Your task to perform on an android device: change text size in settings app Image 0: 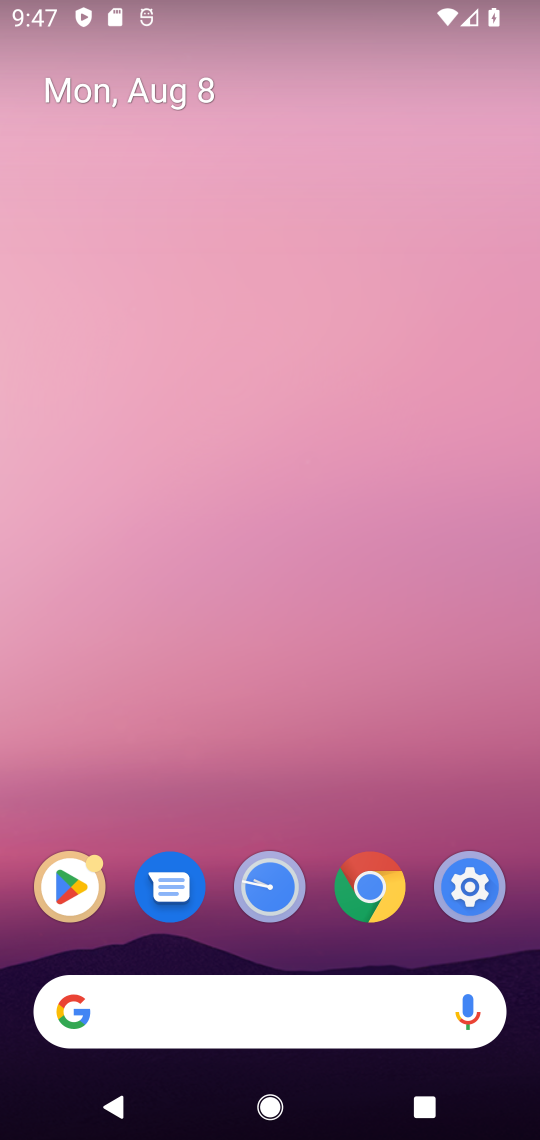
Step 0: drag from (384, 737) to (429, 76)
Your task to perform on an android device: change text size in settings app Image 1: 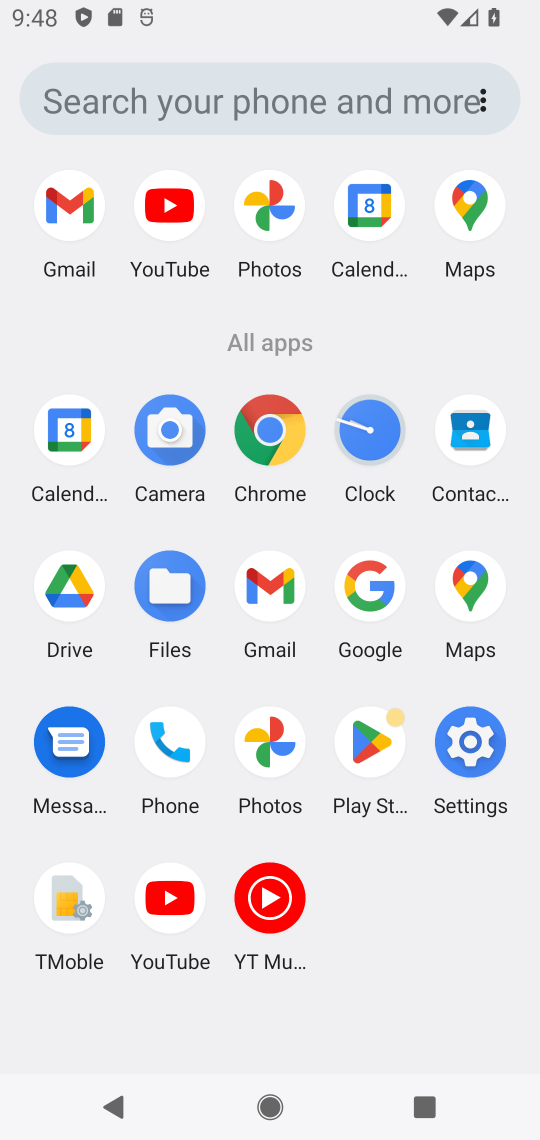
Step 1: click (480, 758)
Your task to perform on an android device: change text size in settings app Image 2: 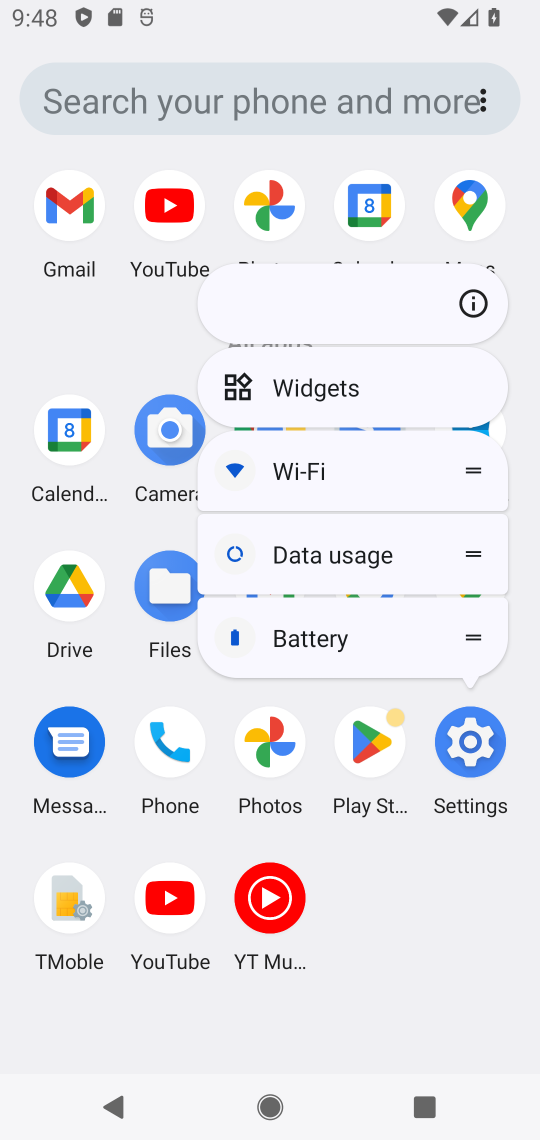
Step 2: click (480, 752)
Your task to perform on an android device: change text size in settings app Image 3: 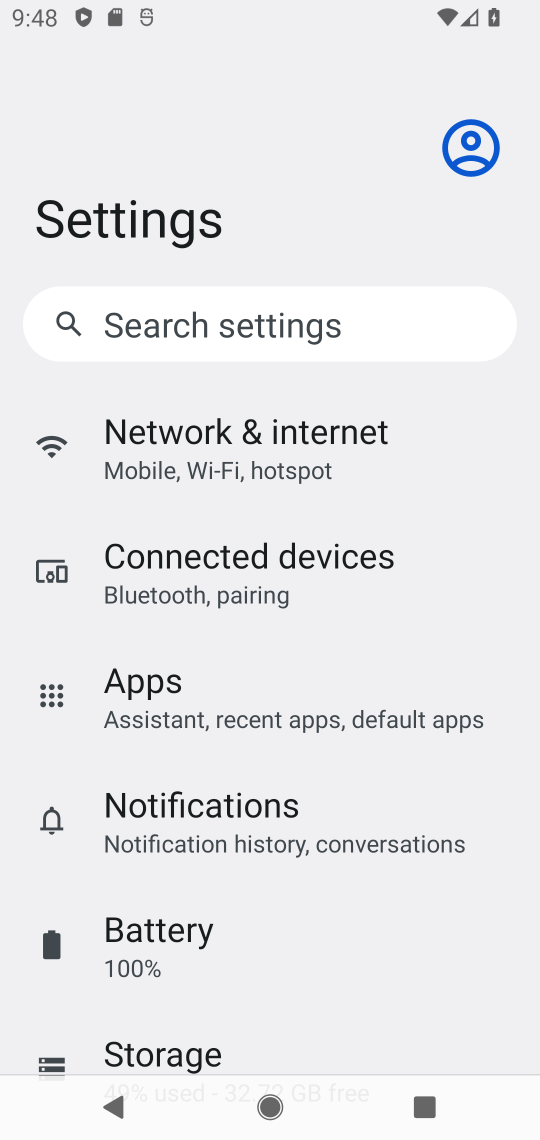
Step 3: drag from (281, 1022) to (340, 520)
Your task to perform on an android device: change text size in settings app Image 4: 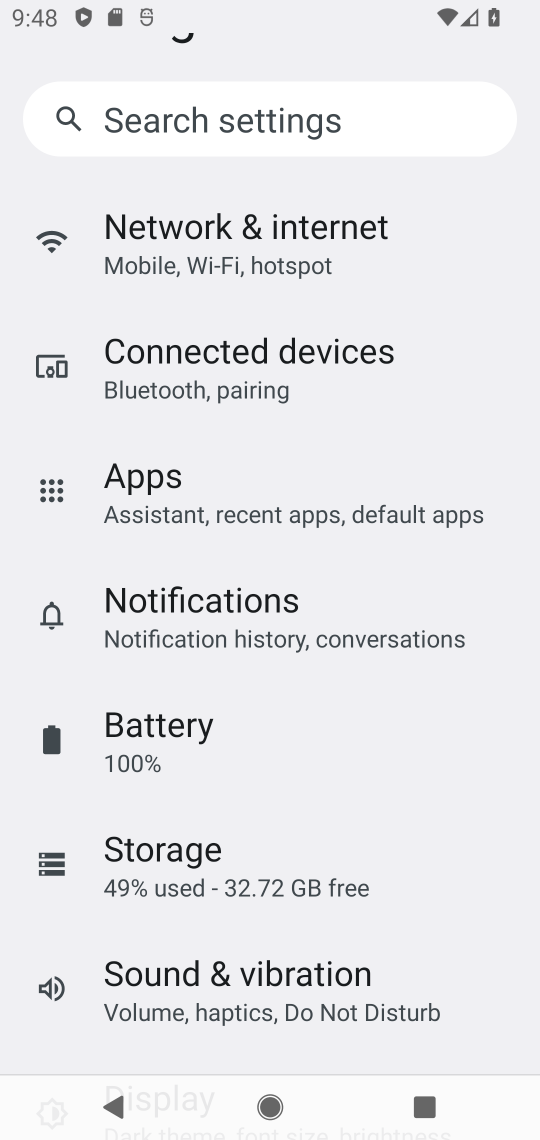
Step 4: drag from (370, 839) to (462, 303)
Your task to perform on an android device: change text size in settings app Image 5: 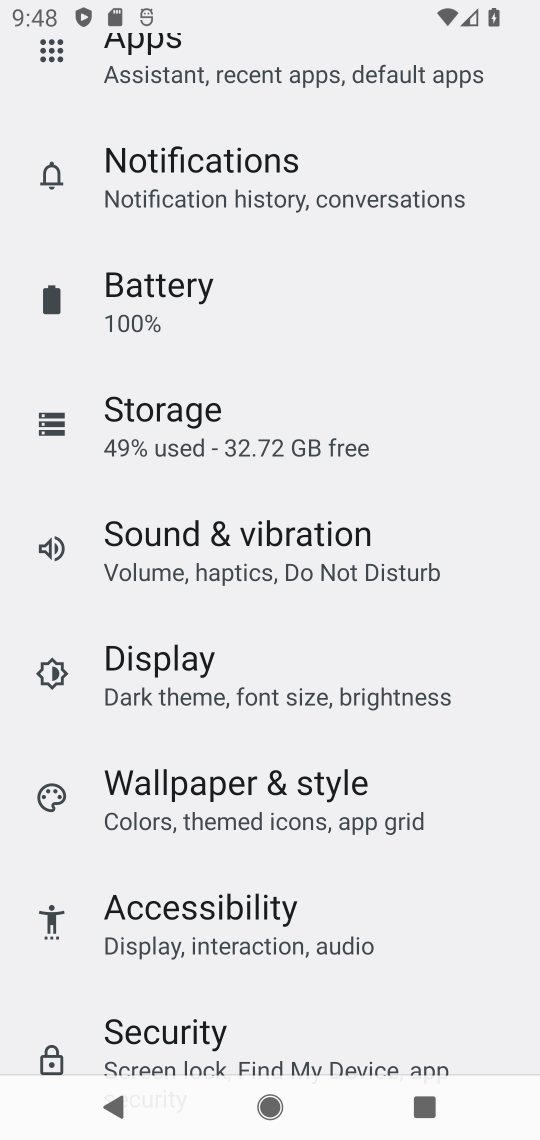
Step 5: drag from (406, 275) to (458, 196)
Your task to perform on an android device: change text size in settings app Image 6: 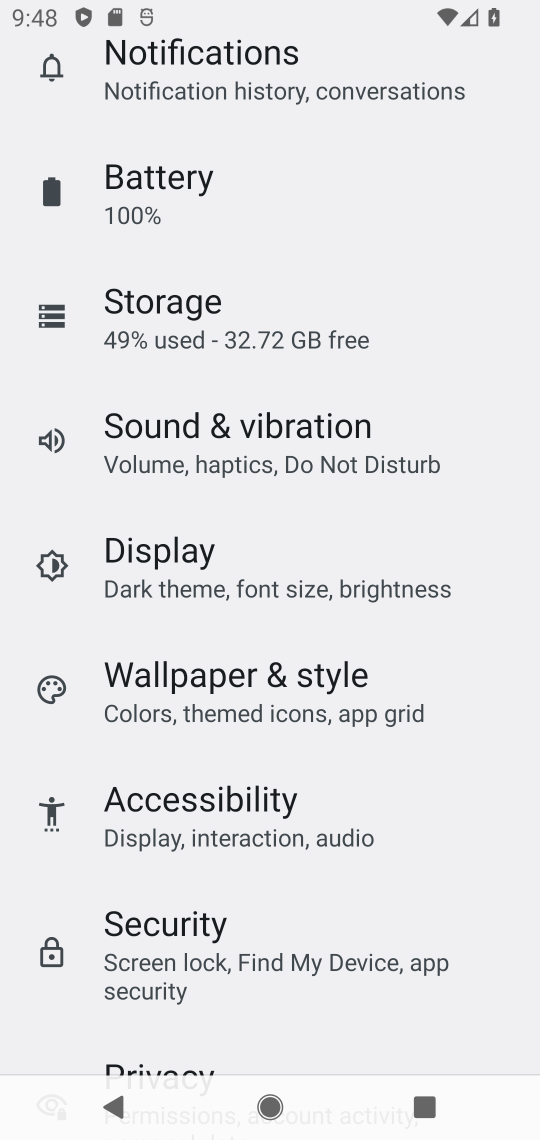
Step 6: click (304, 588)
Your task to perform on an android device: change text size in settings app Image 7: 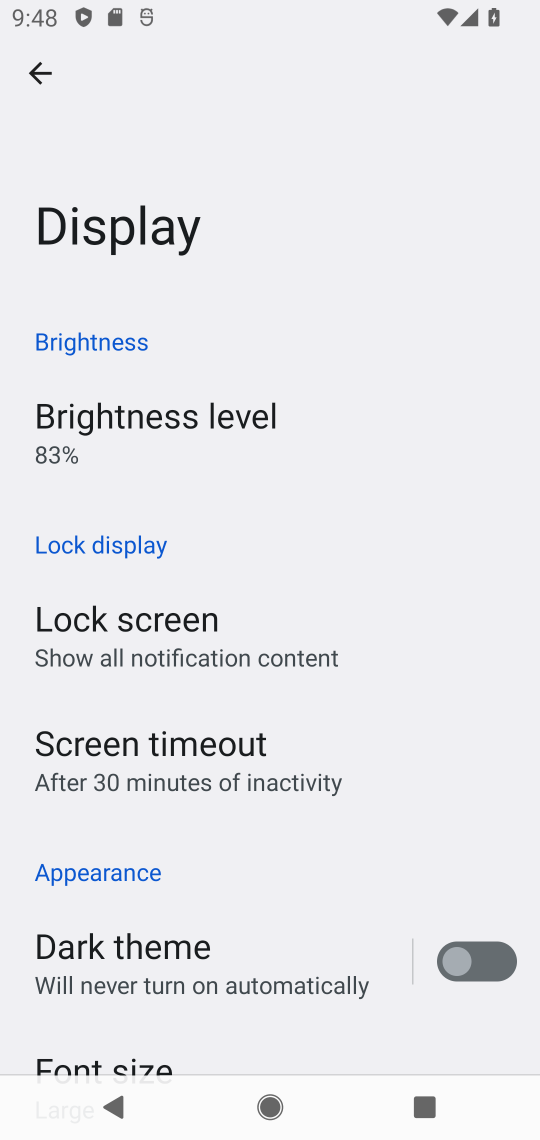
Step 7: drag from (415, 828) to (536, 317)
Your task to perform on an android device: change text size in settings app Image 8: 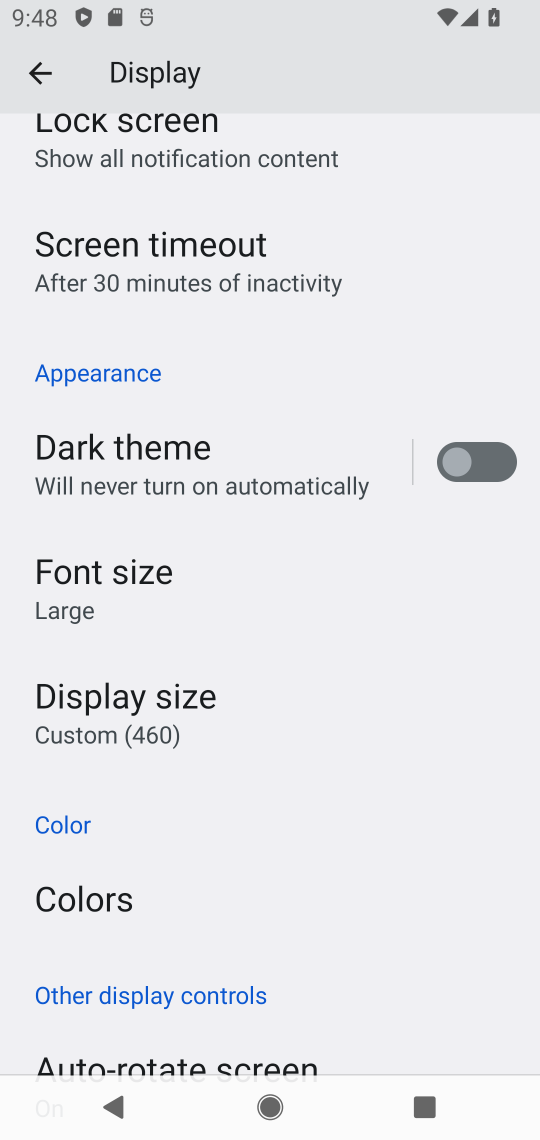
Step 8: click (113, 609)
Your task to perform on an android device: change text size in settings app Image 9: 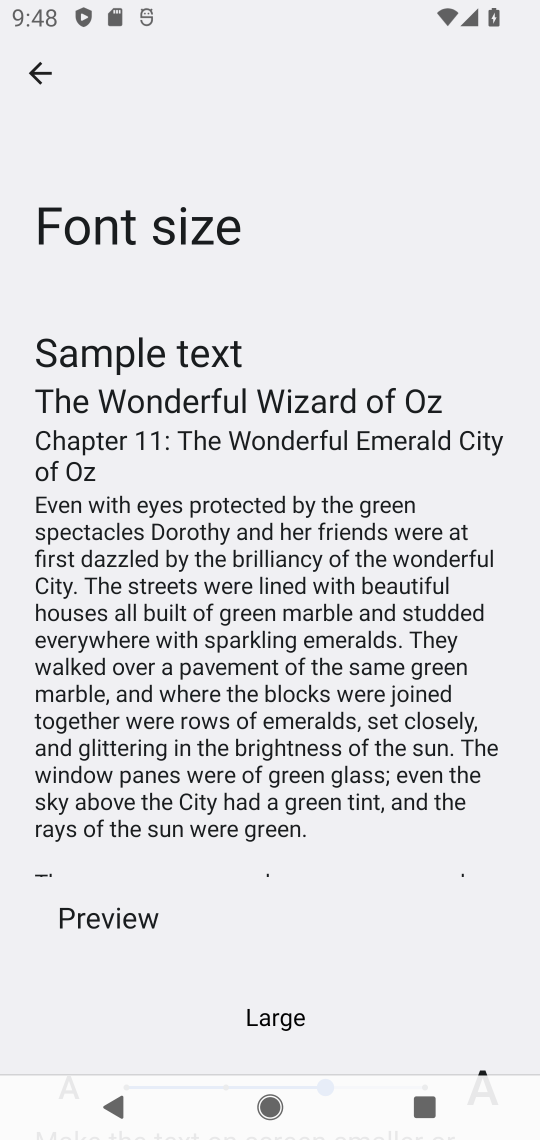
Step 9: drag from (328, 667) to (443, 323)
Your task to perform on an android device: change text size in settings app Image 10: 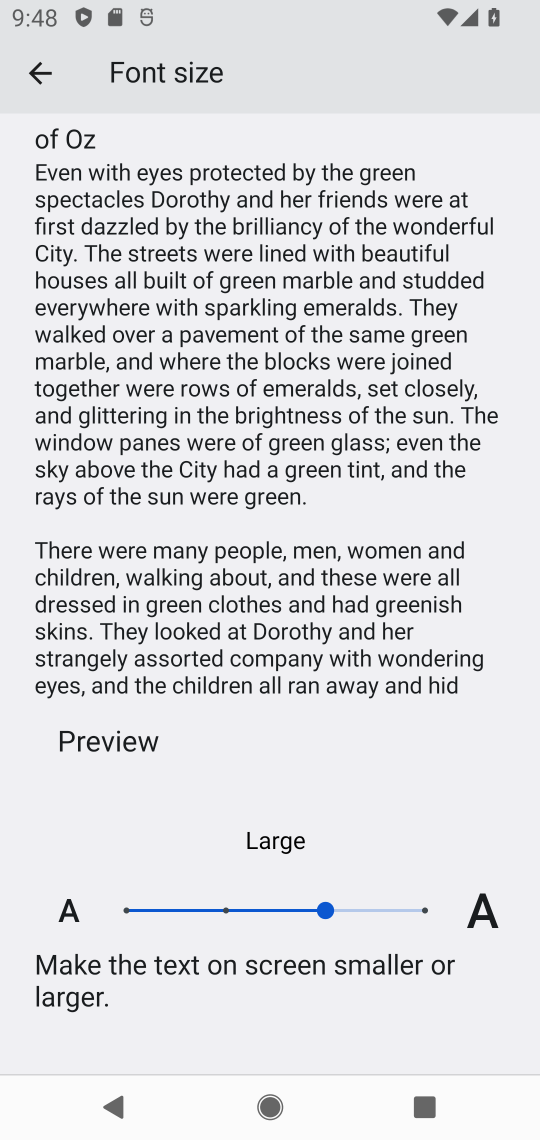
Step 10: click (218, 915)
Your task to perform on an android device: change text size in settings app Image 11: 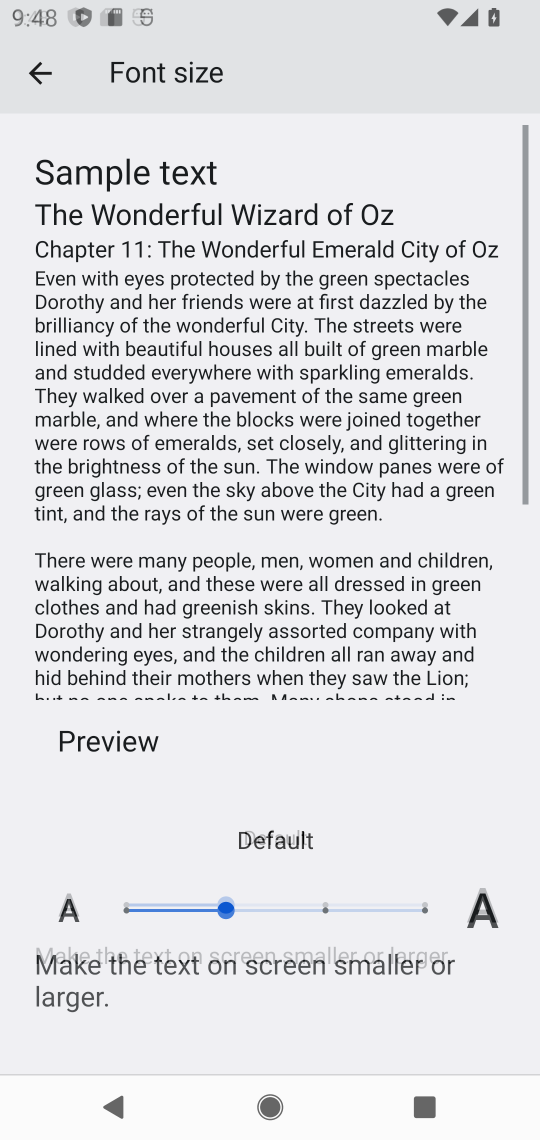
Step 11: task complete